Your task to perform on an android device: Open calendar and show me the first week of next month Image 0: 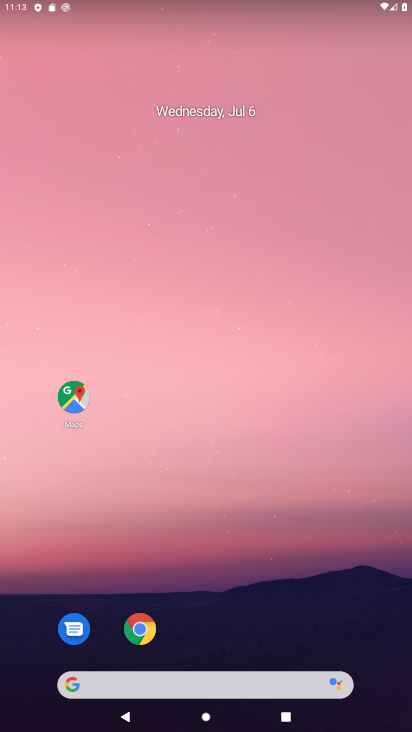
Step 0: drag from (238, 613) to (181, 118)
Your task to perform on an android device: Open calendar and show me the first week of next month Image 1: 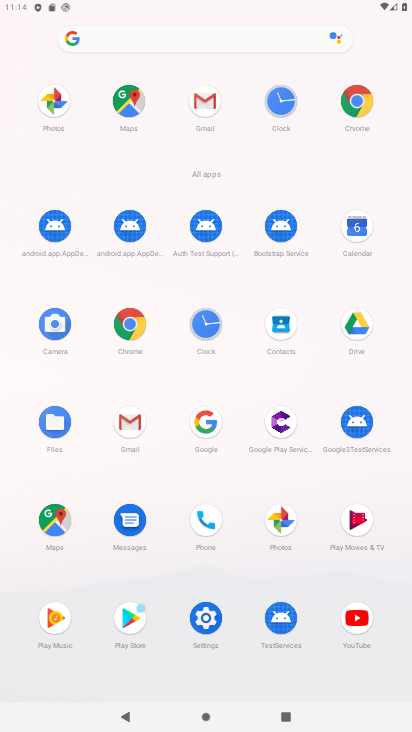
Step 1: click (359, 225)
Your task to perform on an android device: Open calendar and show me the first week of next month Image 2: 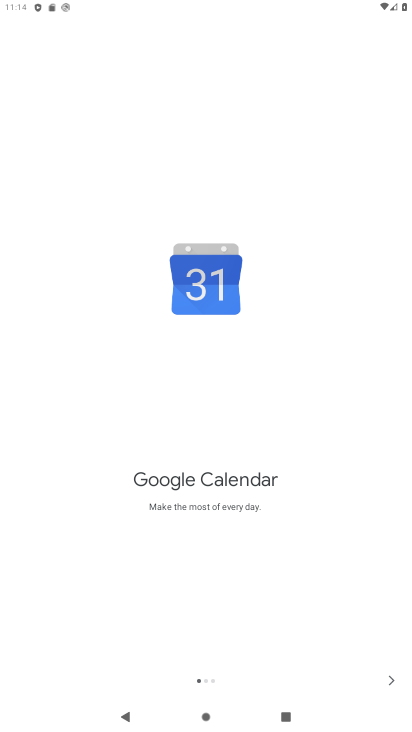
Step 2: click (393, 682)
Your task to perform on an android device: Open calendar and show me the first week of next month Image 3: 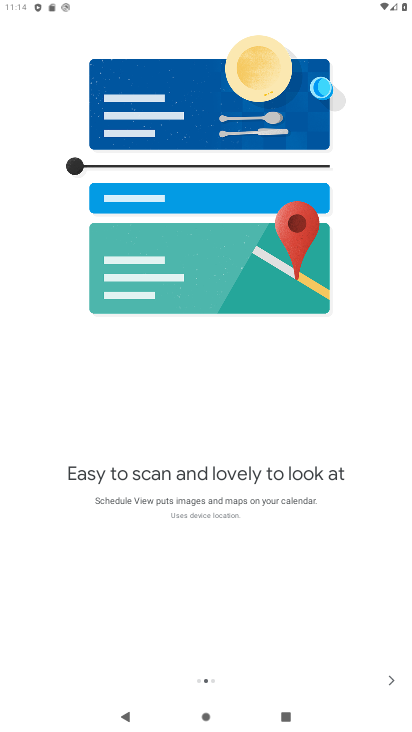
Step 3: click (393, 682)
Your task to perform on an android device: Open calendar and show me the first week of next month Image 4: 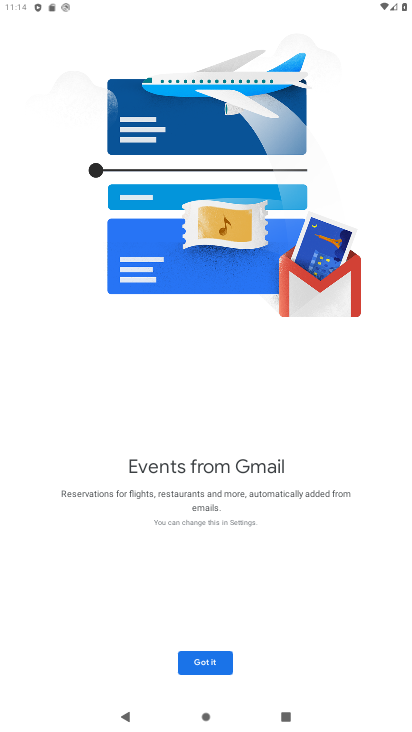
Step 4: click (209, 670)
Your task to perform on an android device: Open calendar and show me the first week of next month Image 5: 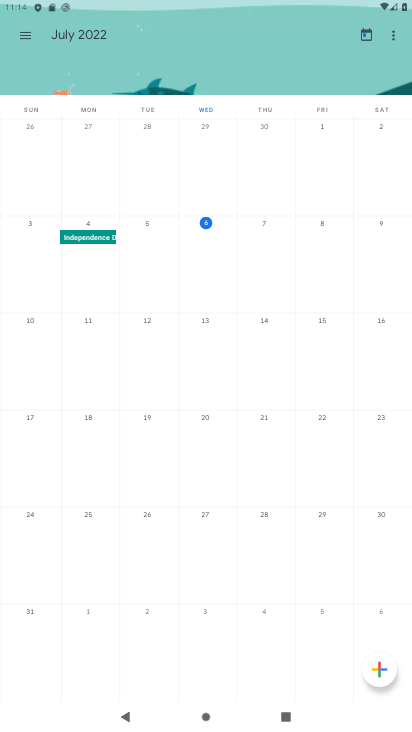
Step 5: click (114, 35)
Your task to perform on an android device: Open calendar and show me the first week of next month Image 6: 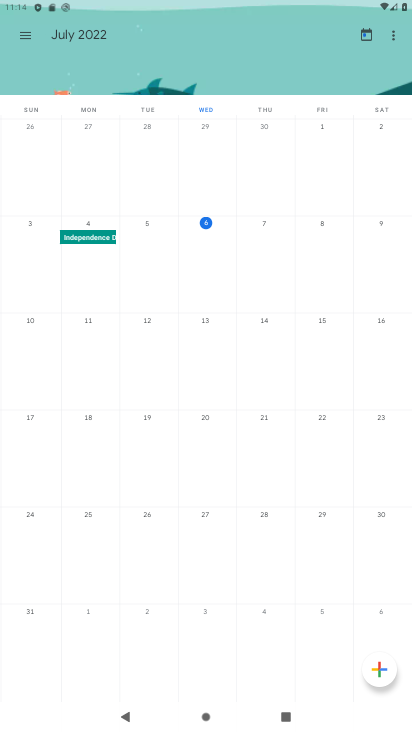
Step 6: click (371, 35)
Your task to perform on an android device: Open calendar and show me the first week of next month Image 7: 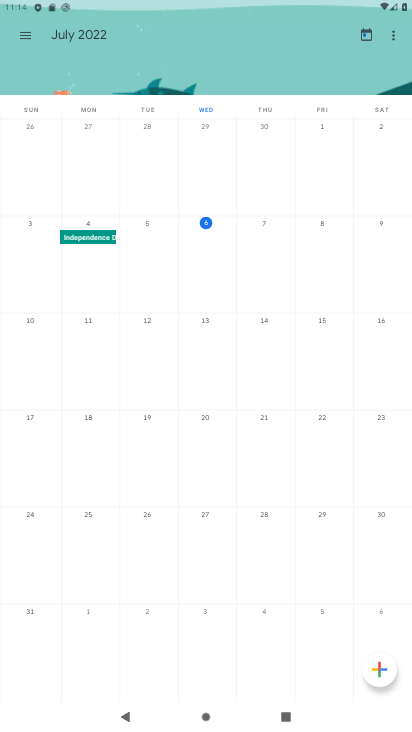
Step 7: click (88, 617)
Your task to perform on an android device: Open calendar and show me the first week of next month Image 8: 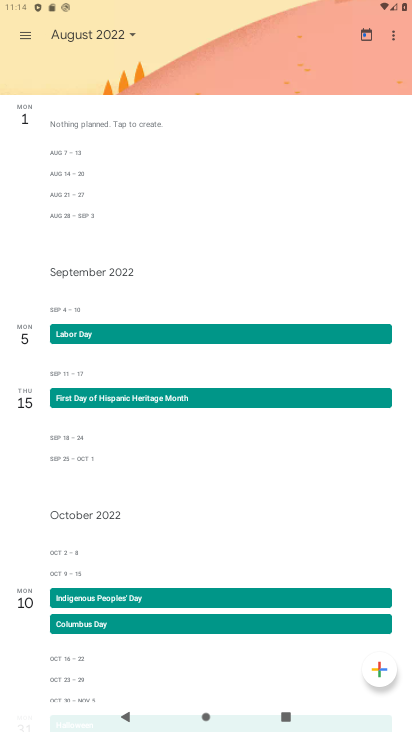
Step 8: click (16, 34)
Your task to perform on an android device: Open calendar and show me the first week of next month Image 9: 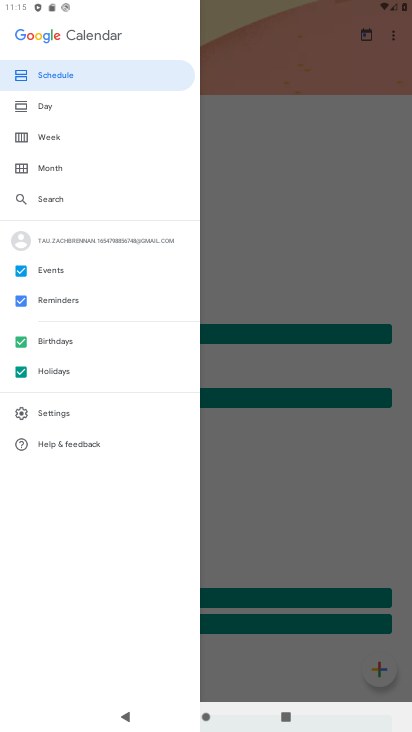
Step 9: click (38, 139)
Your task to perform on an android device: Open calendar and show me the first week of next month Image 10: 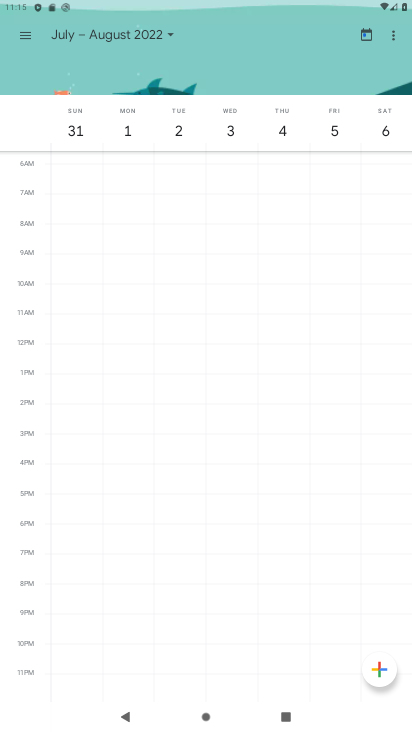
Step 10: task complete